Your task to perform on an android device: Set the phone to "Do not disturb". Image 0: 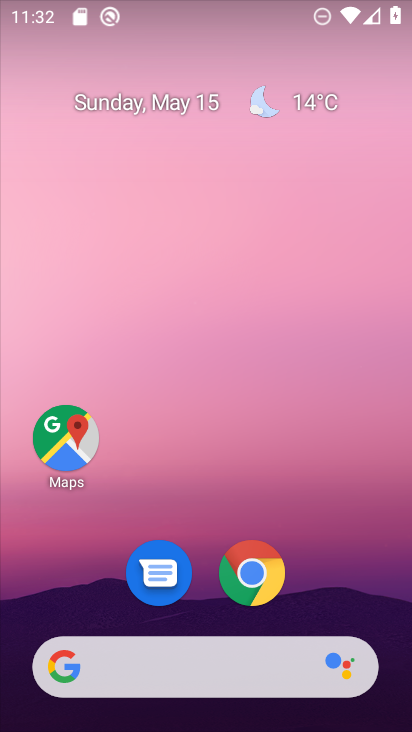
Step 0: press home button
Your task to perform on an android device: Set the phone to "Do not disturb". Image 1: 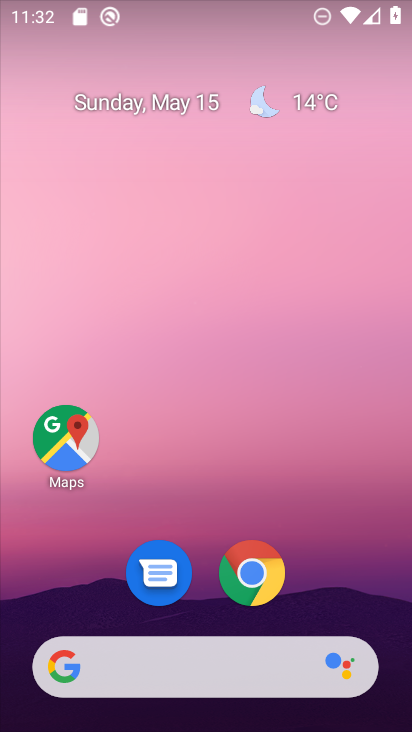
Step 1: drag from (188, 449) to (120, 46)
Your task to perform on an android device: Set the phone to "Do not disturb". Image 2: 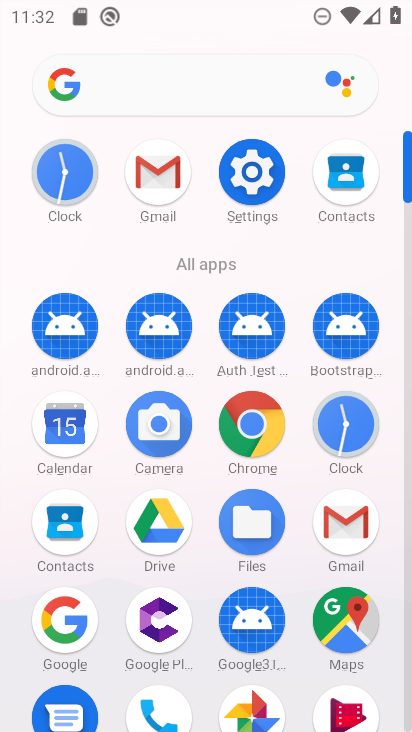
Step 2: click (253, 169)
Your task to perform on an android device: Set the phone to "Do not disturb". Image 3: 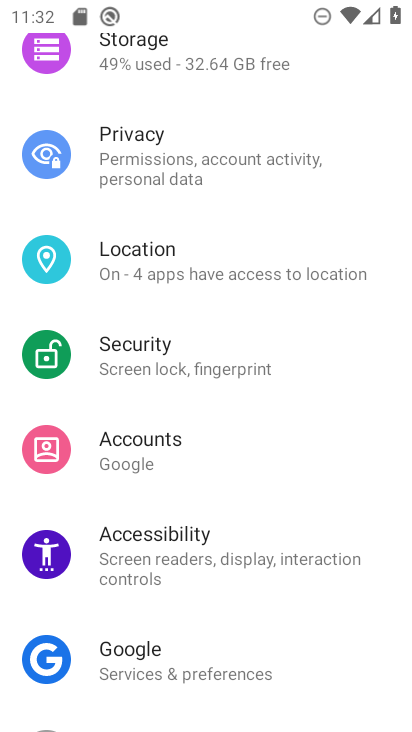
Step 3: drag from (229, 508) to (157, 194)
Your task to perform on an android device: Set the phone to "Do not disturb". Image 4: 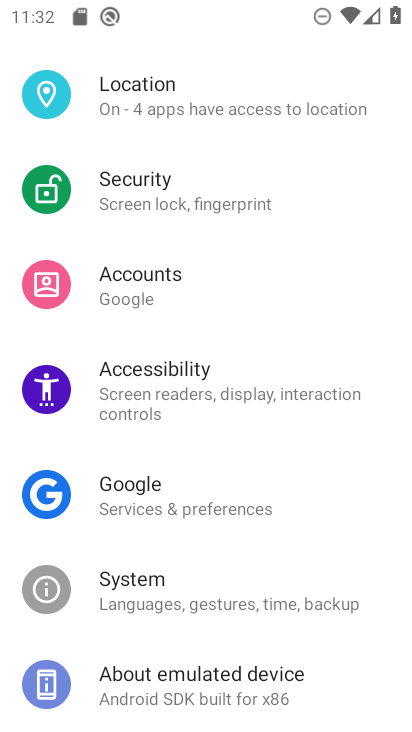
Step 4: drag from (226, 137) to (258, 514)
Your task to perform on an android device: Set the phone to "Do not disturb". Image 5: 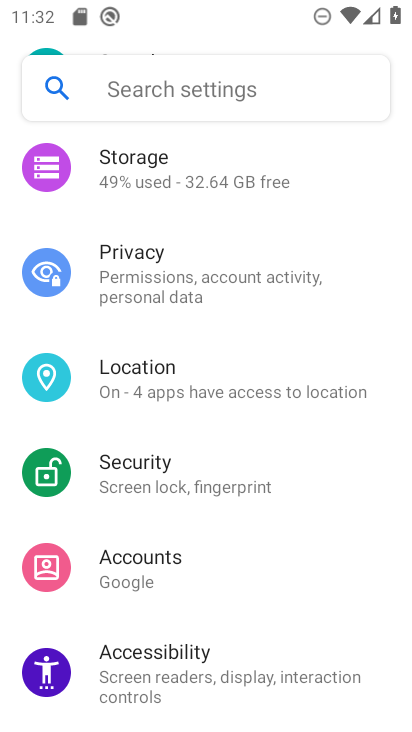
Step 5: drag from (228, 222) to (252, 534)
Your task to perform on an android device: Set the phone to "Do not disturb". Image 6: 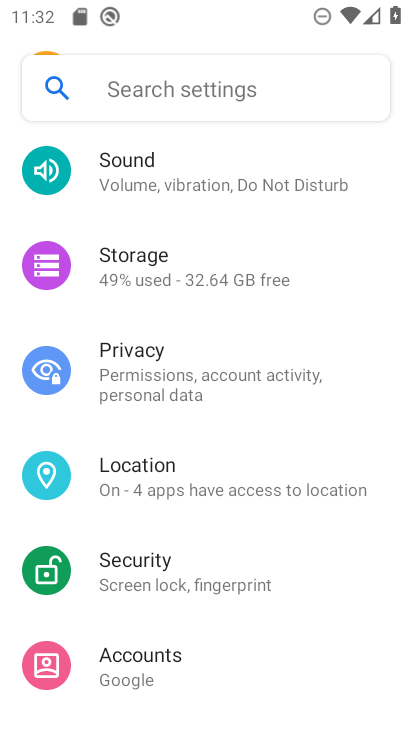
Step 6: click (133, 164)
Your task to perform on an android device: Set the phone to "Do not disturb". Image 7: 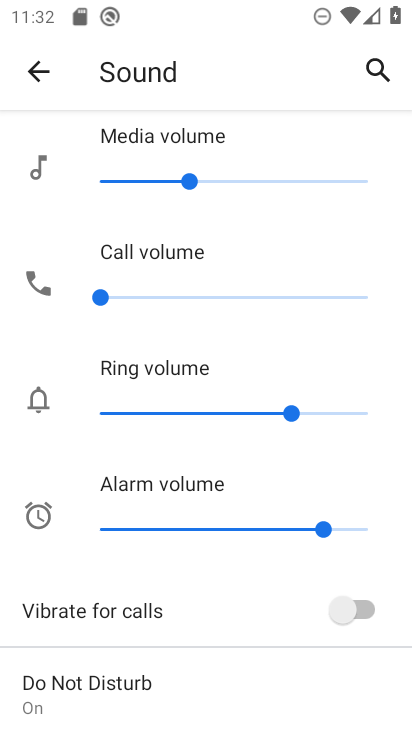
Step 7: click (111, 684)
Your task to perform on an android device: Set the phone to "Do not disturb". Image 8: 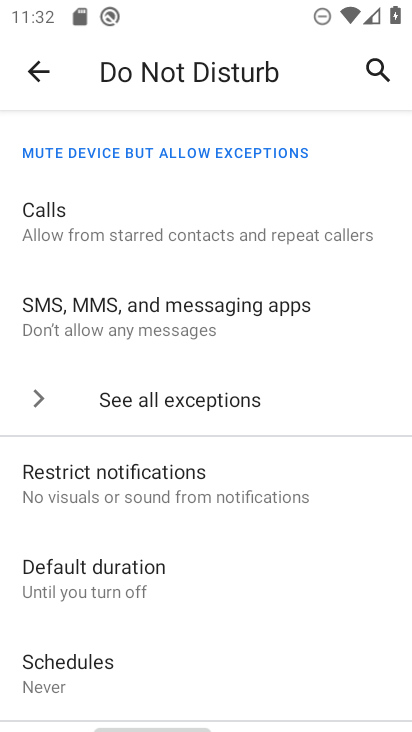
Step 8: task complete